Your task to perform on an android device: Open display settings Image 0: 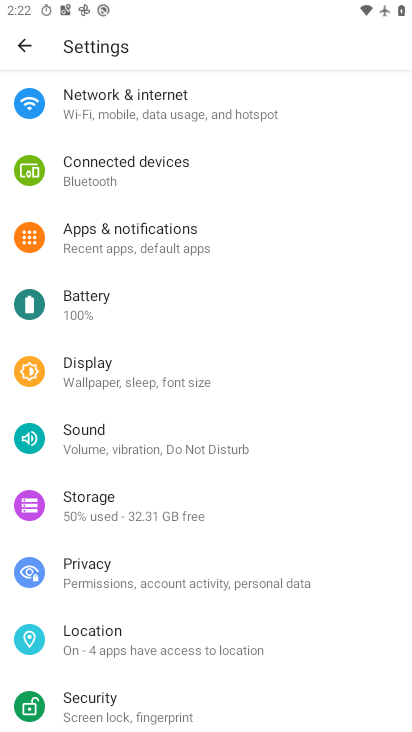
Step 0: click (92, 388)
Your task to perform on an android device: Open display settings Image 1: 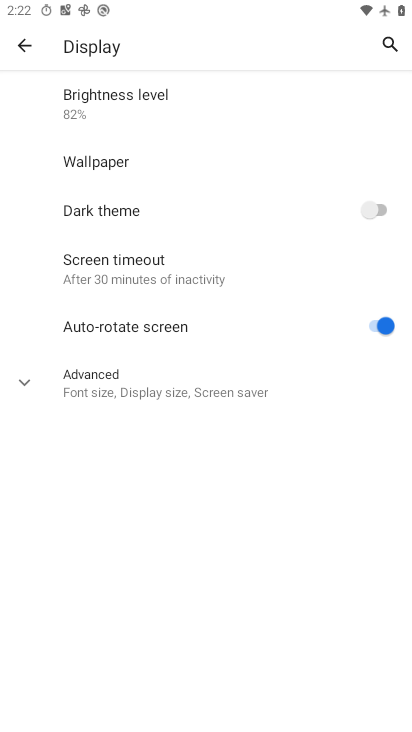
Step 1: task complete